Your task to perform on an android device: What's the weather today? Image 0: 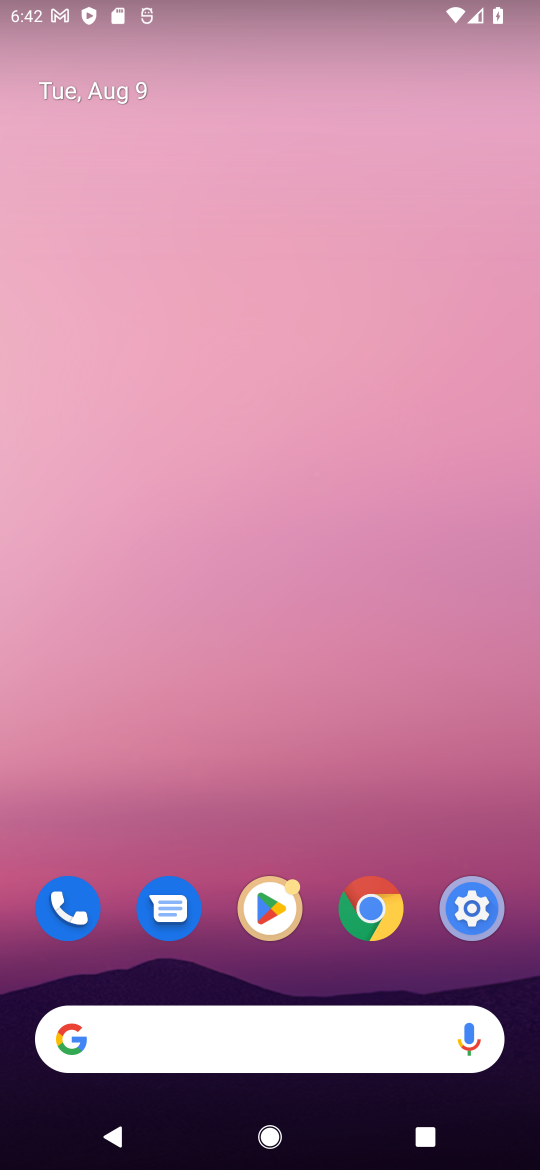
Step 0: drag from (296, 989) to (296, 57)
Your task to perform on an android device: What's the weather today? Image 1: 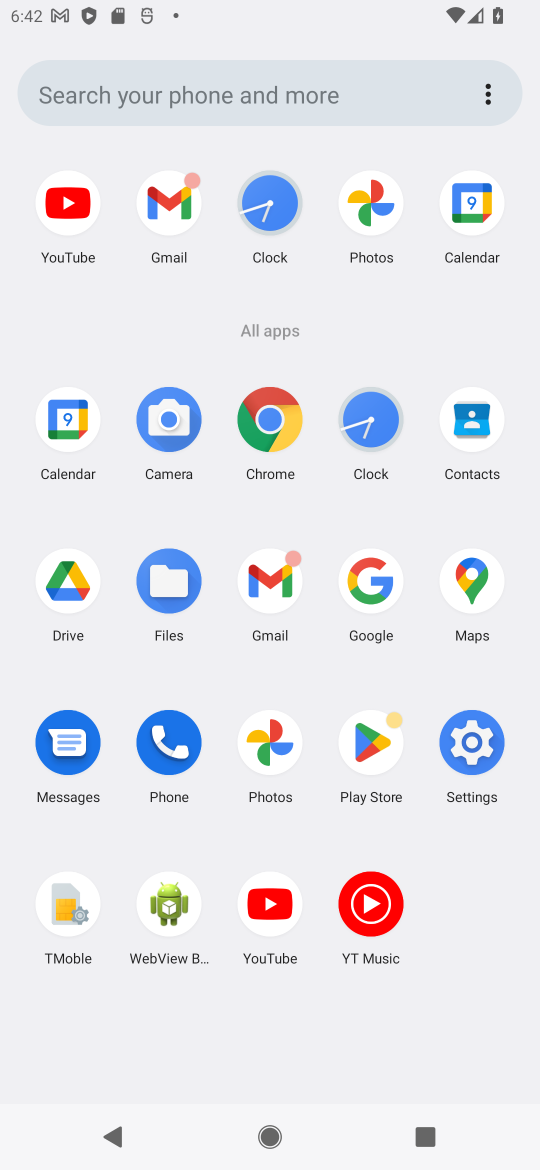
Step 1: click (374, 603)
Your task to perform on an android device: What's the weather today? Image 2: 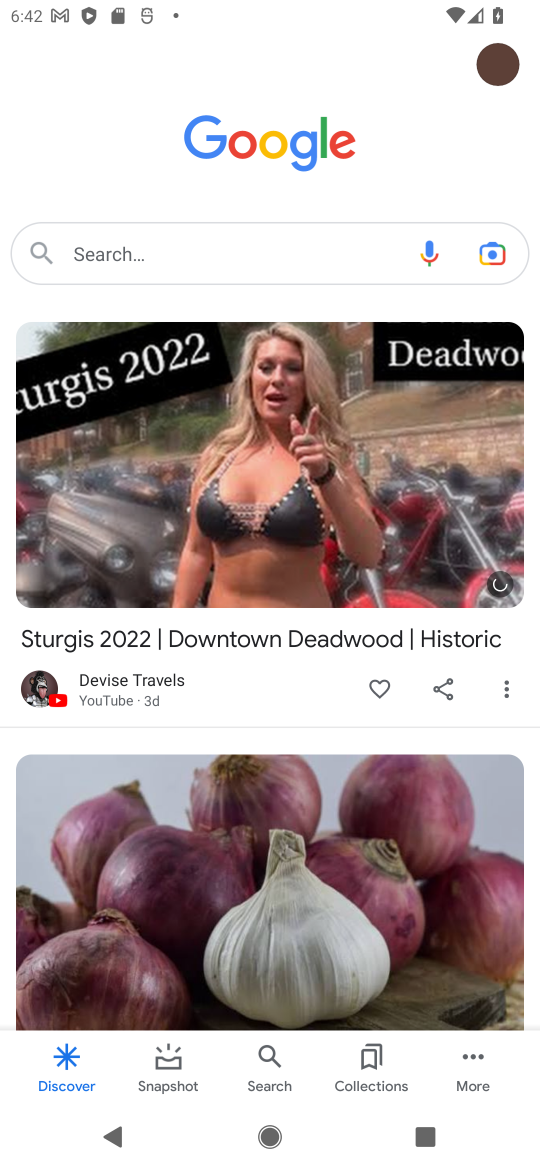
Step 2: click (156, 255)
Your task to perform on an android device: What's the weather today? Image 3: 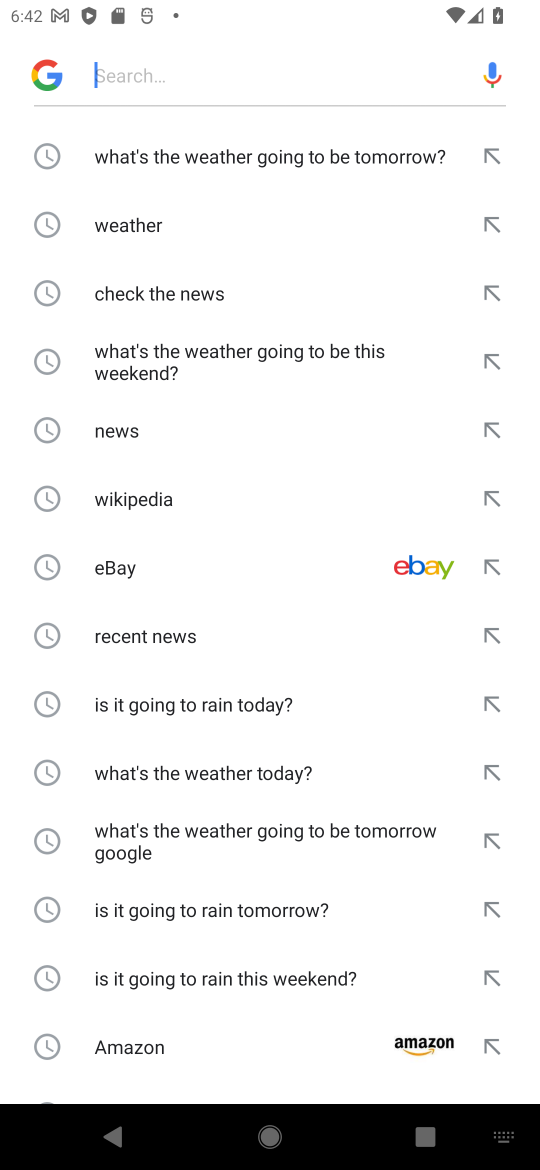
Step 3: click (123, 221)
Your task to perform on an android device: What's the weather today? Image 4: 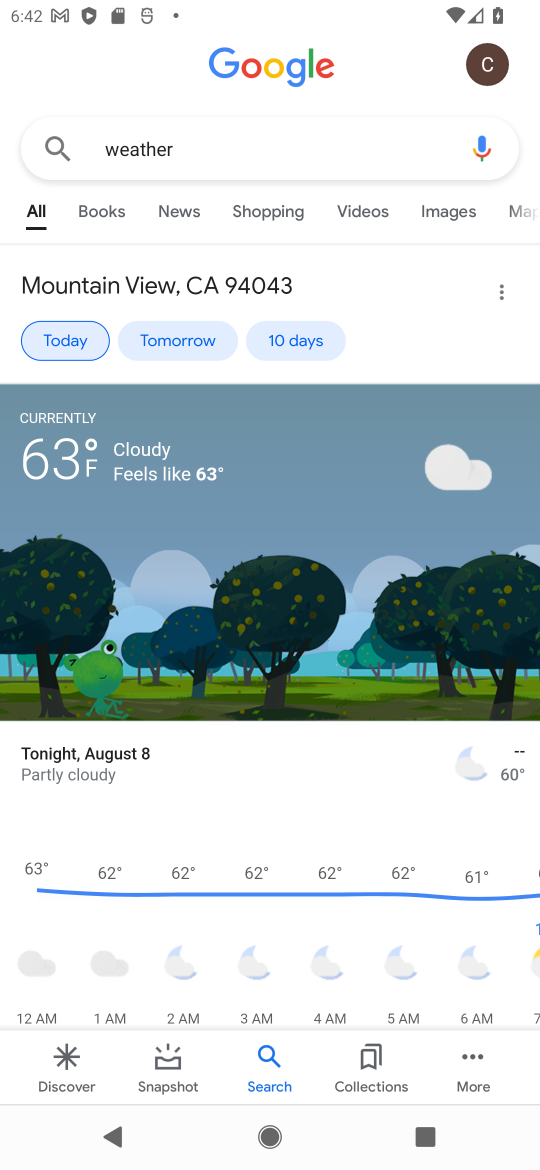
Step 4: click (66, 334)
Your task to perform on an android device: What's the weather today? Image 5: 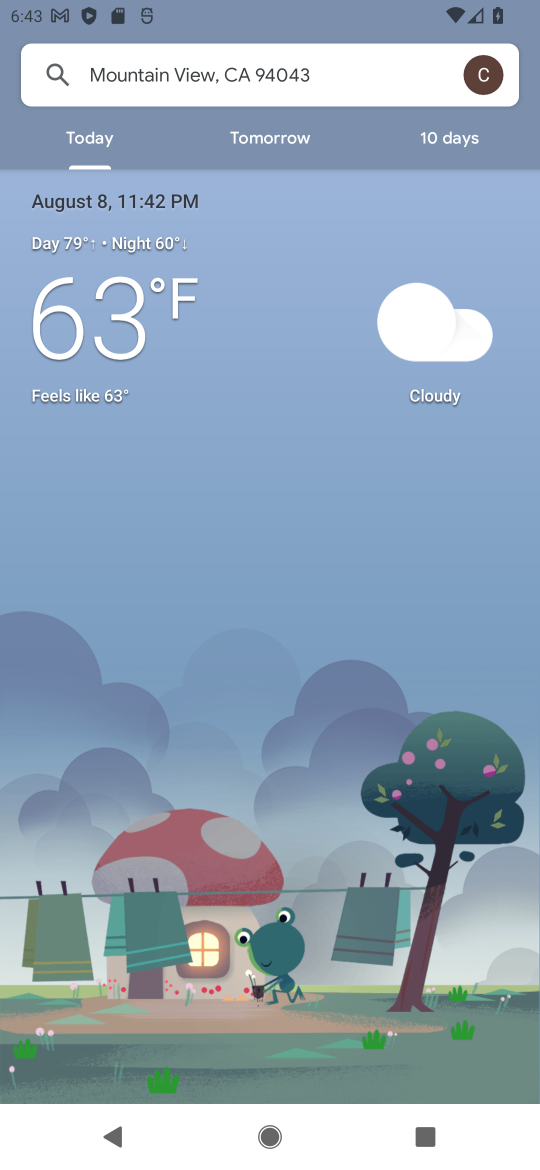
Step 5: task complete